Your task to perform on an android device: Go to accessibility settings Image 0: 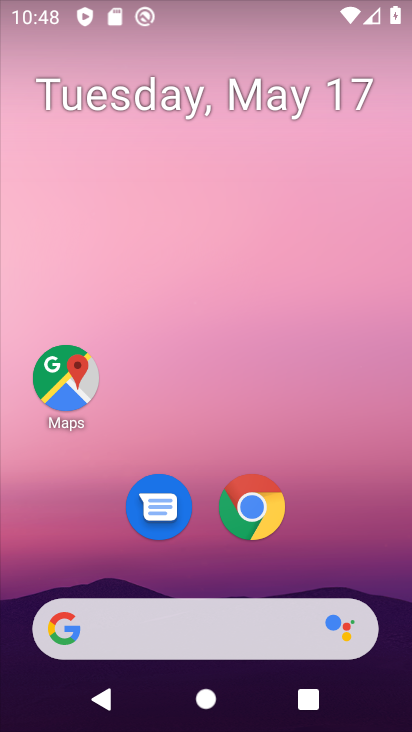
Step 0: drag from (382, 509) to (336, 210)
Your task to perform on an android device: Go to accessibility settings Image 1: 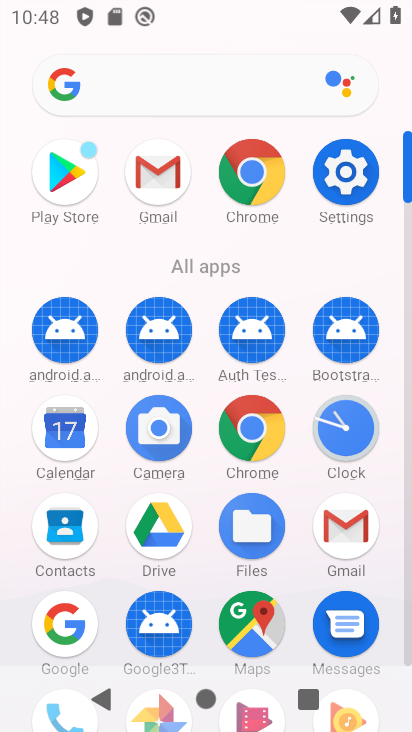
Step 1: click (341, 201)
Your task to perform on an android device: Go to accessibility settings Image 2: 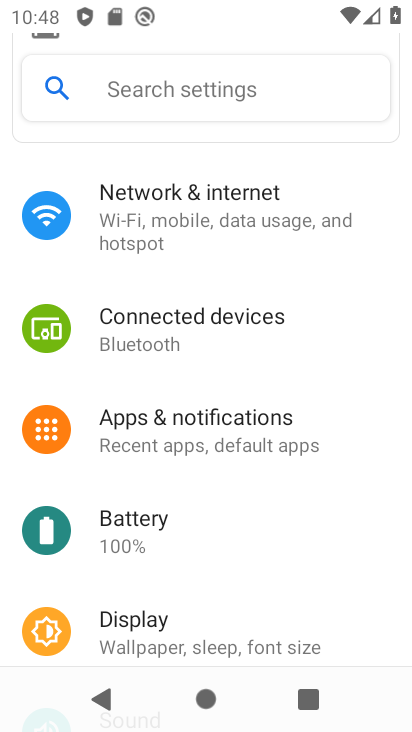
Step 2: drag from (254, 572) to (254, 248)
Your task to perform on an android device: Go to accessibility settings Image 3: 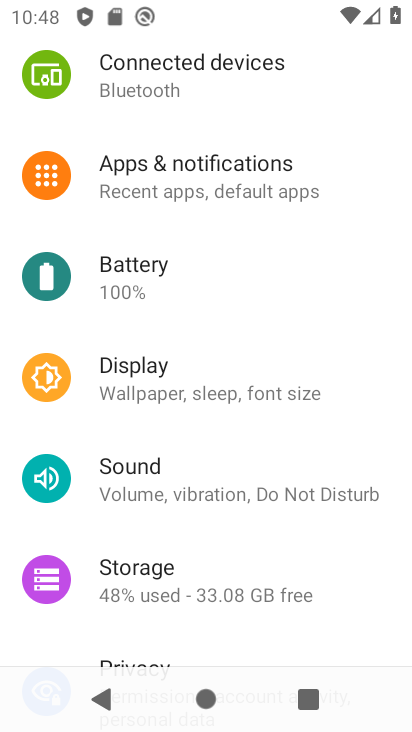
Step 3: drag from (243, 619) to (268, 299)
Your task to perform on an android device: Go to accessibility settings Image 4: 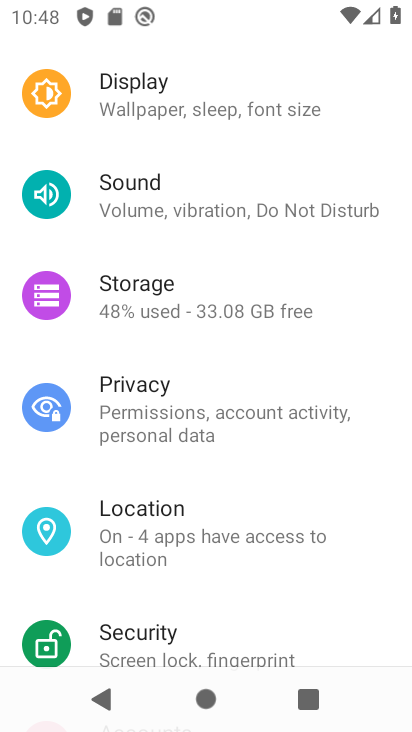
Step 4: drag from (242, 575) to (258, 236)
Your task to perform on an android device: Go to accessibility settings Image 5: 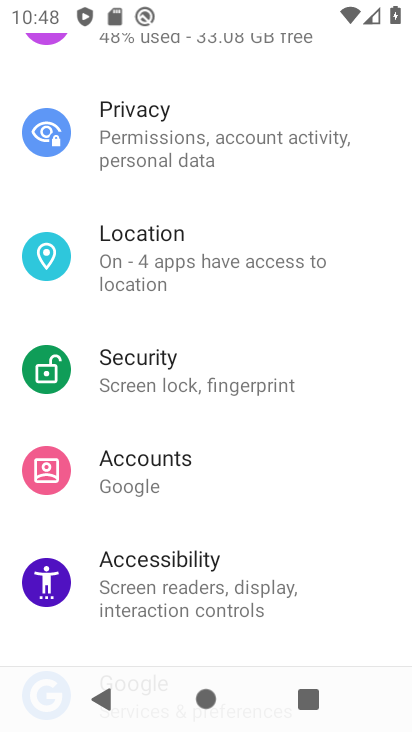
Step 5: click (197, 576)
Your task to perform on an android device: Go to accessibility settings Image 6: 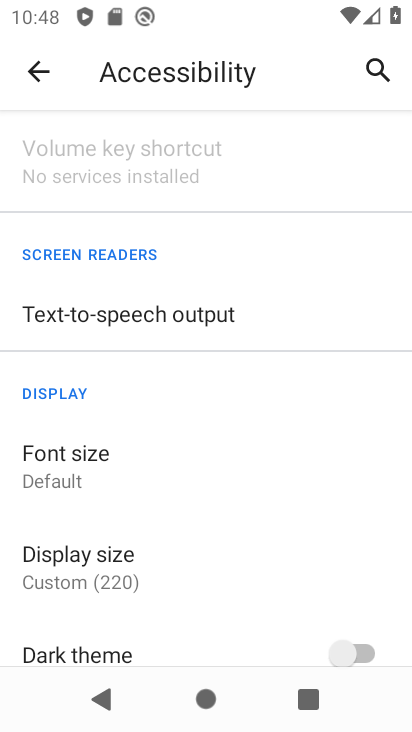
Step 6: task complete